Your task to perform on an android device: What is the recent news? Image 0: 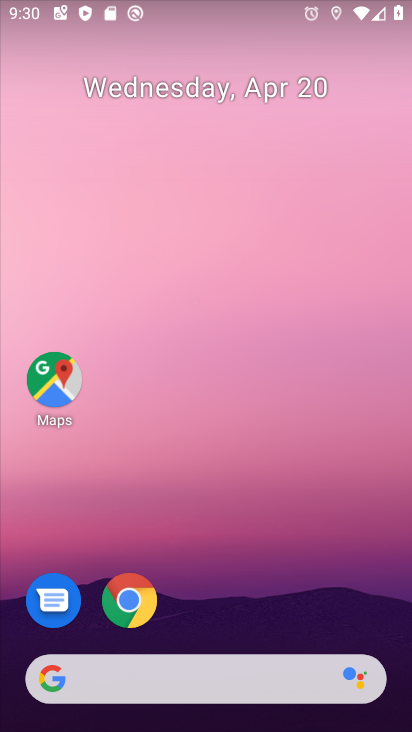
Step 0: drag from (17, 220) to (404, 328)
Your task to perform on an android device: What is the recent news? Image 1: 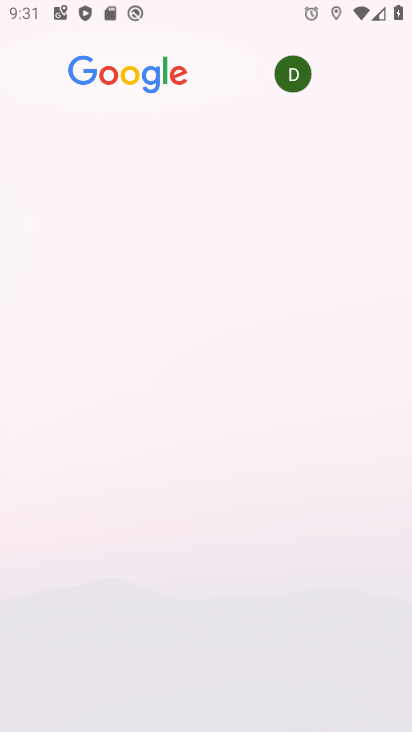
Step 1: task complete